Your task to perform on an android device: turn on the 12-hour format for clock Image 0: 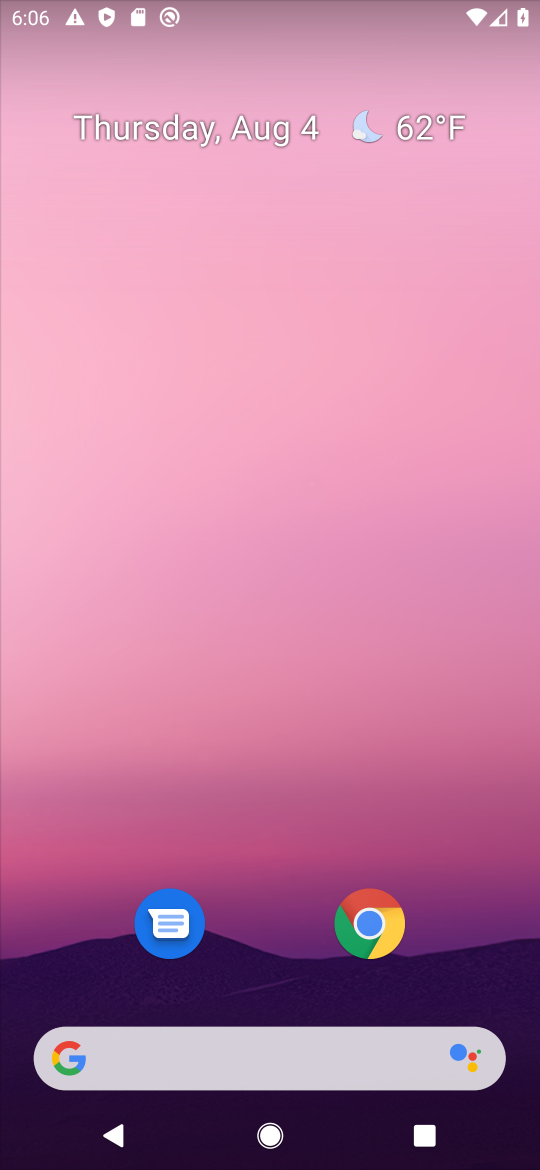
Step 0: drag from (500, 926) to (400, 249)
Your task to perform on an android device: turn on the 12-hour format for clock Image 1: 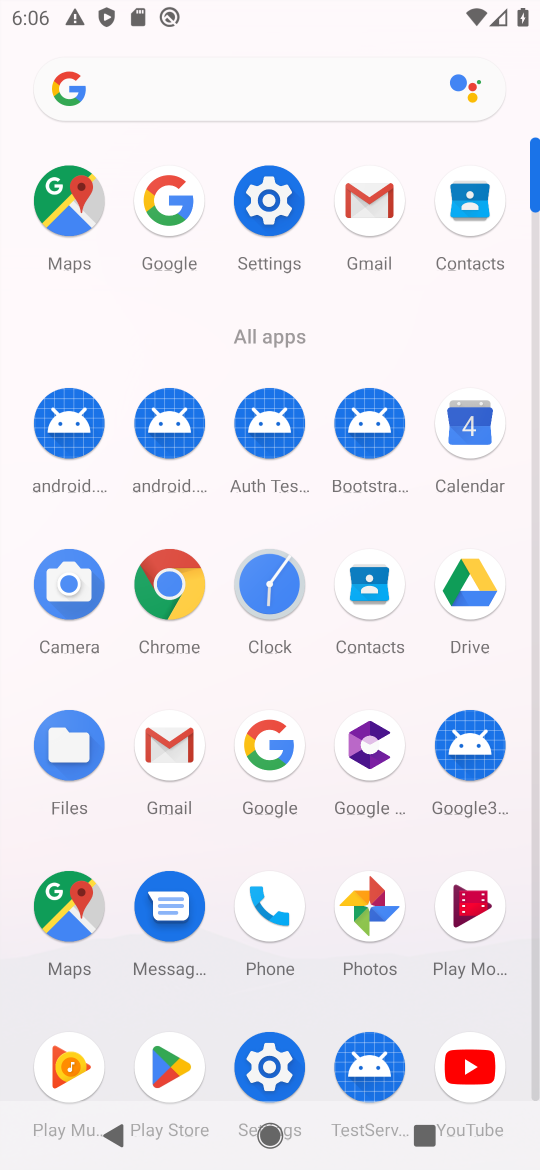
Step 1: click (270, 582)
Your task to perform on an android device: turn on the 12-hour format for clock Image 2: 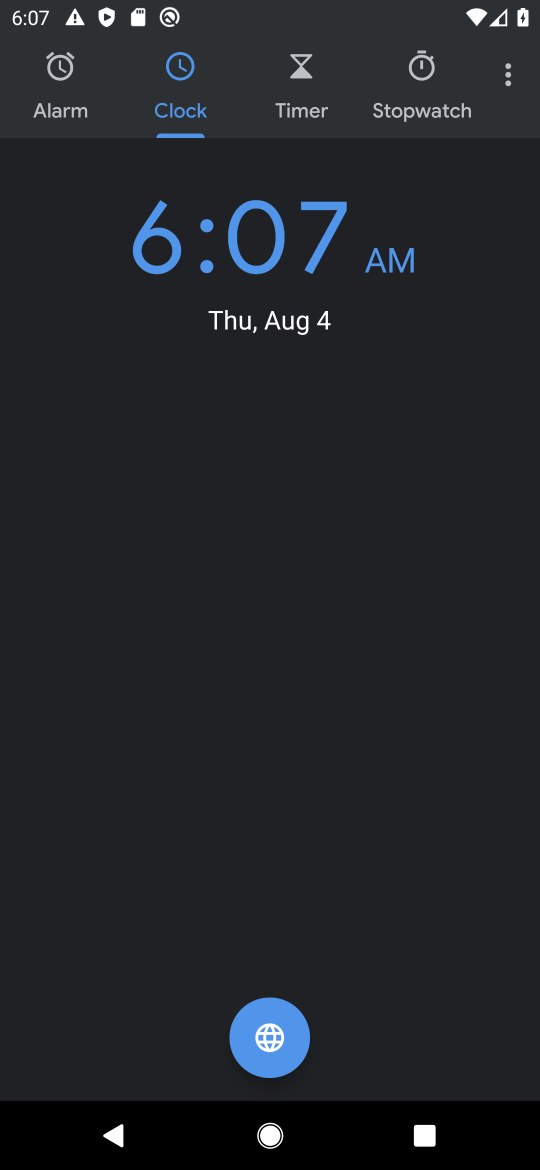
Step 2: click (517, 88)
Your task to perform on an android device: turn on the 12-hour format for clock Image 3: 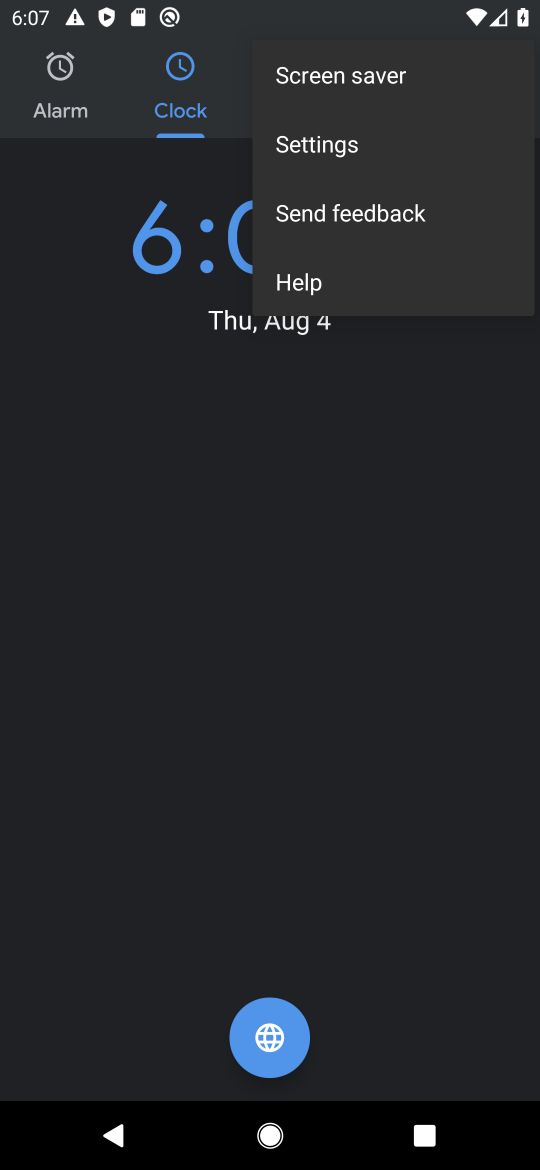
Step 3: click (336, 151)
Your task to perform on an android device: turn on the 12-hour format for clock Image 4: 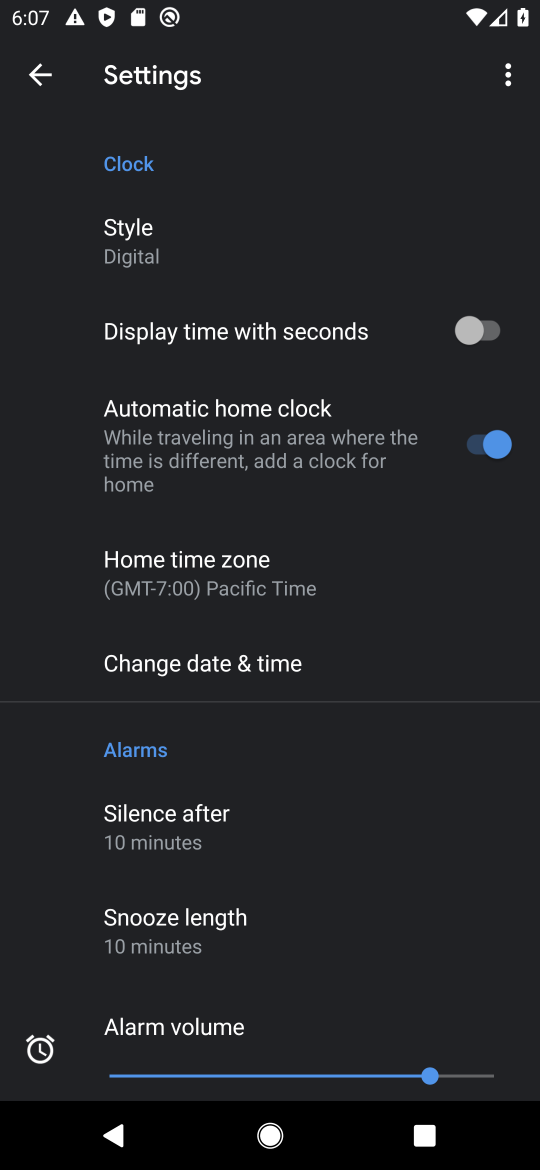
Step 4: drag from (369, 846) to (282, 566)
Your task to perform on an android device: turn on the 12-hour format for clock Image 5: 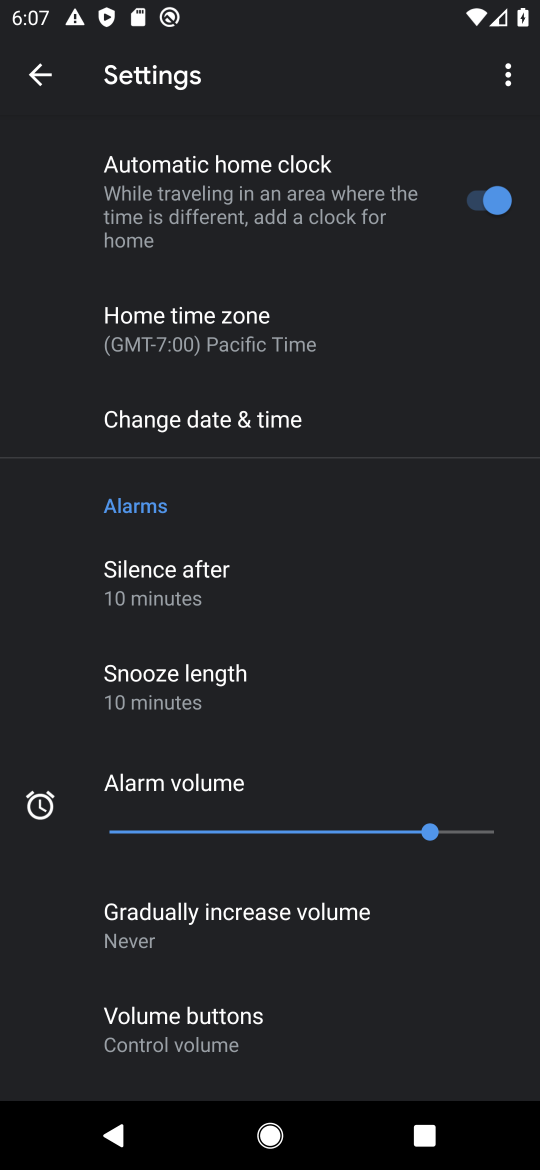
Step 5: click (230, 430)
Your task to perform on an android device: turn on the 12-hour format for clock Image 6: 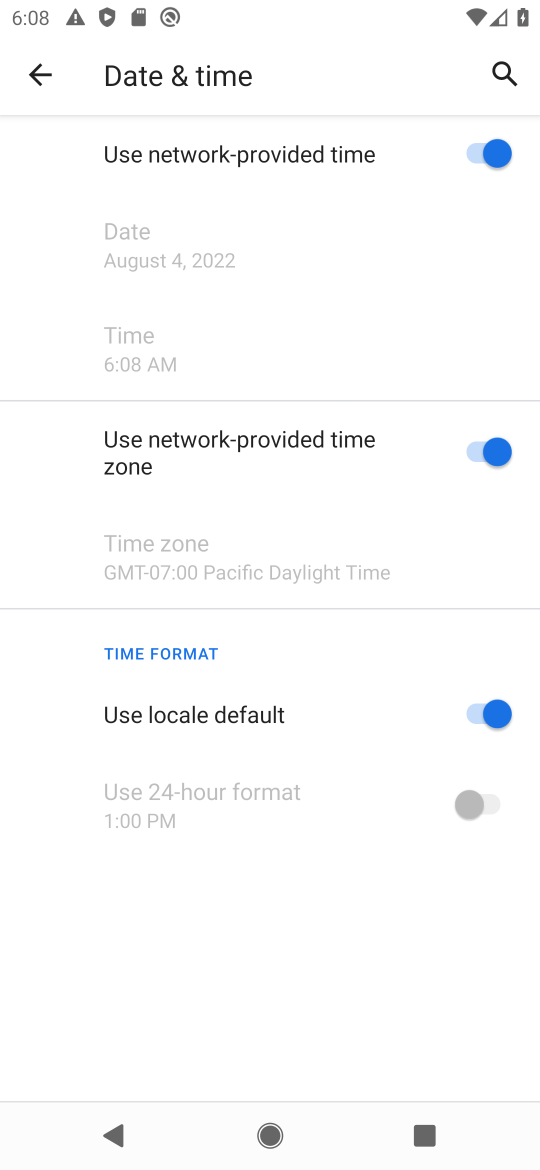
Step 6: task complete